Your task to perform on an android device: Open Android settings Image 0: 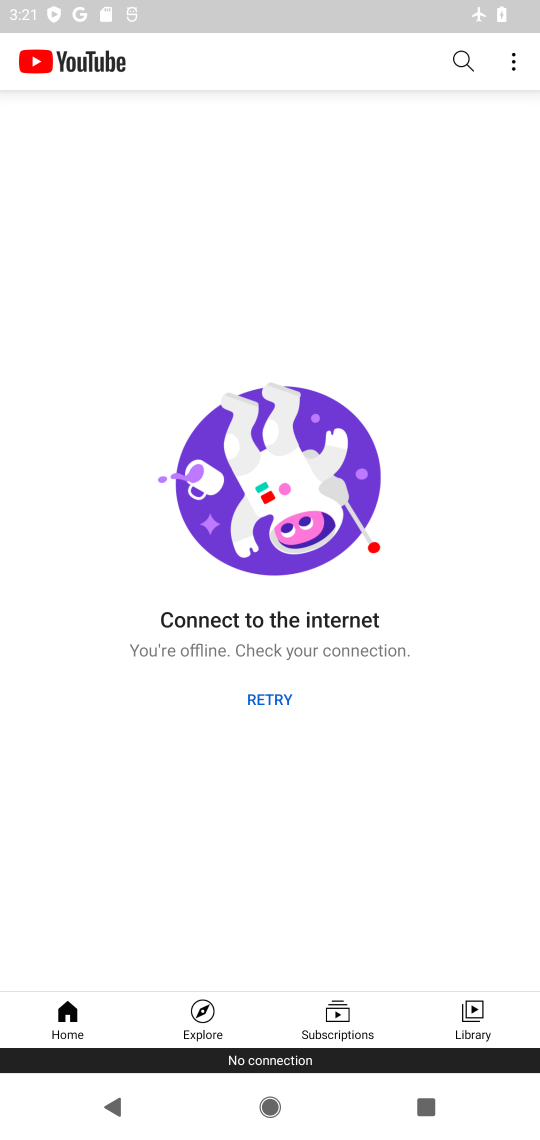
Step 0: press home button
Your task to perform on an android device: Open Android settings Image 1: 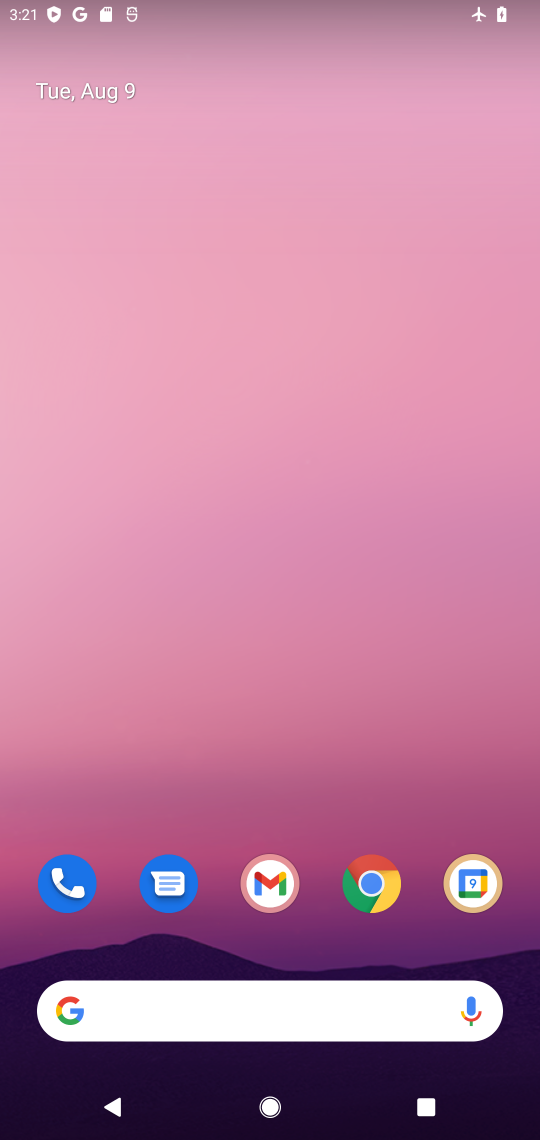
Step 1: drag from (436, 807) to (388, 116)
Your task to perform on an android device: Open Android settings Image 2: 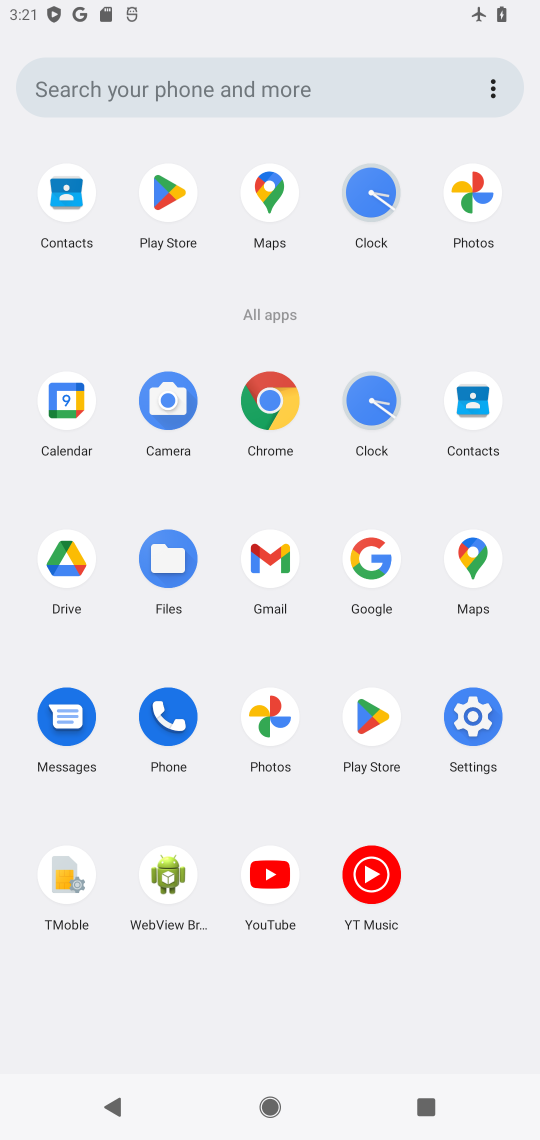
Step 2: click (474, 717)
Your task to perform on an android device: Open Android settings Image 3: 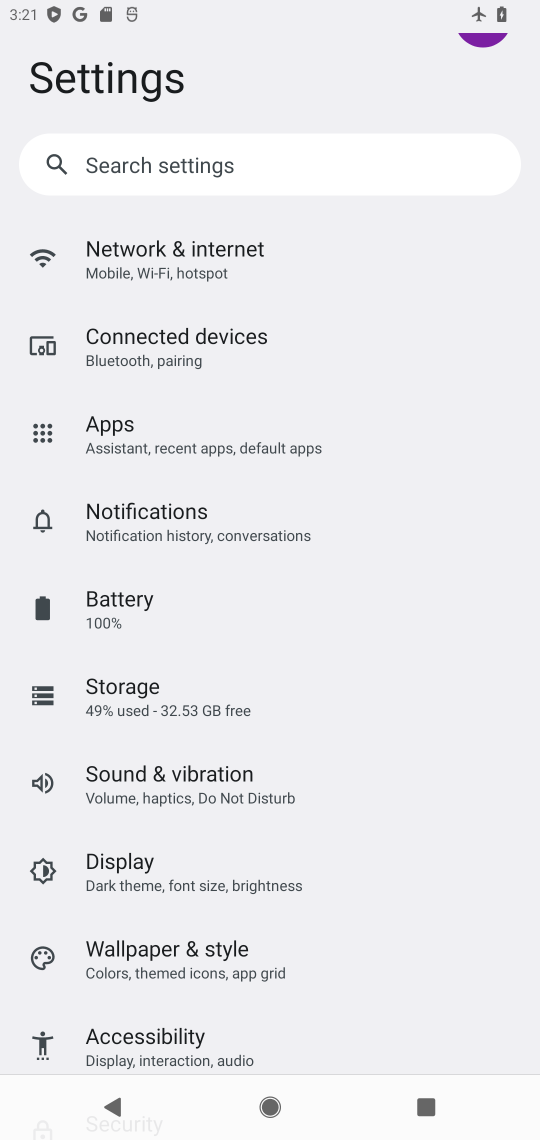
Step 3: drag from (388, 924) to (386, 258)
Your task to perform on an android device: Open Android settings Image 4: 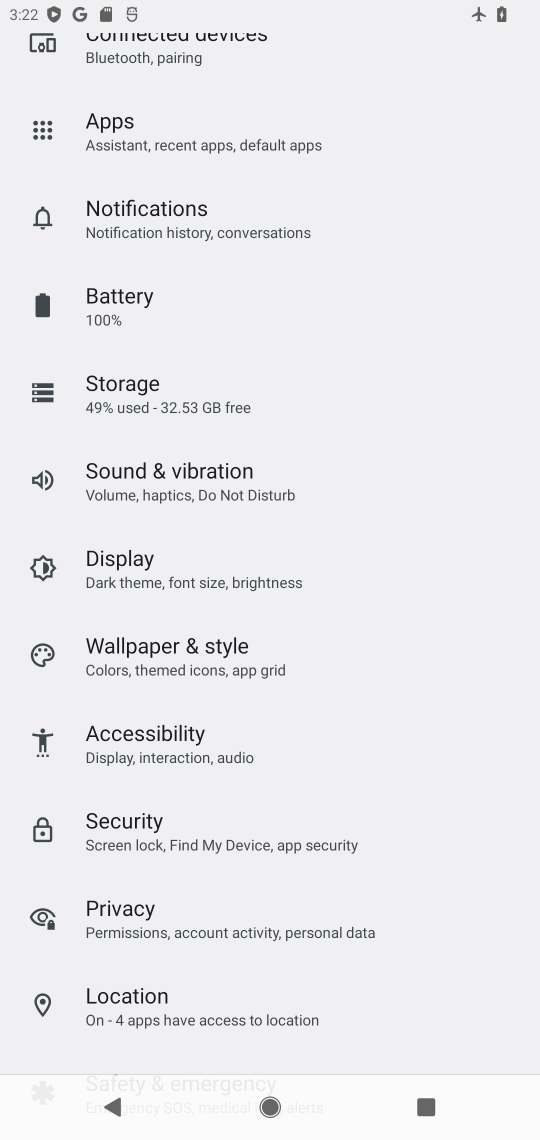
Step 4: drag from (359, 908) to (374, 337)
Your task to perform on an android device: Open Android settings Image 5: 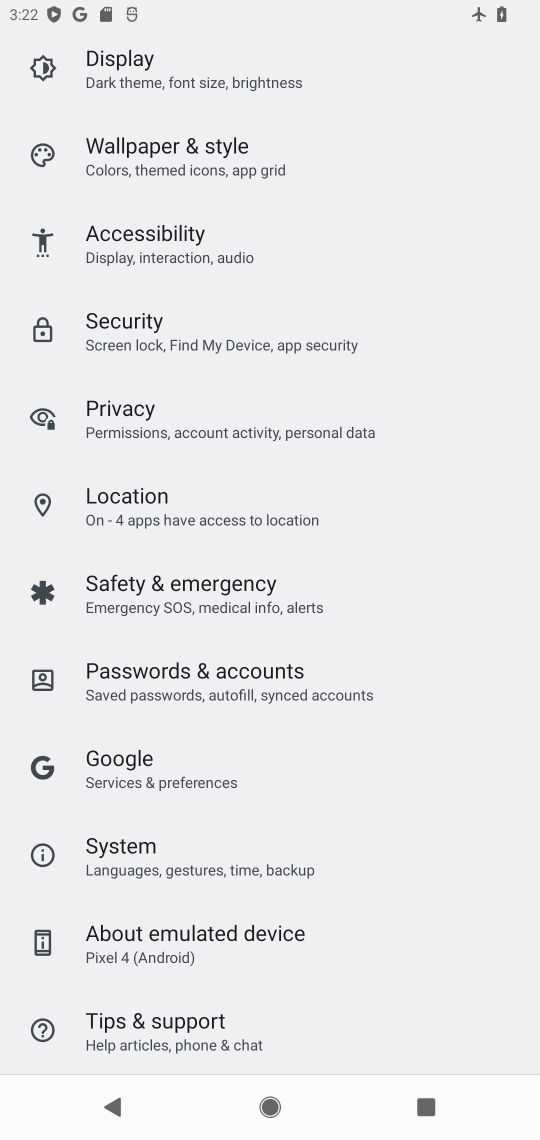
Step 5: click (204, 928)
Your task to perform on an android device: Open Android settings Image 6: 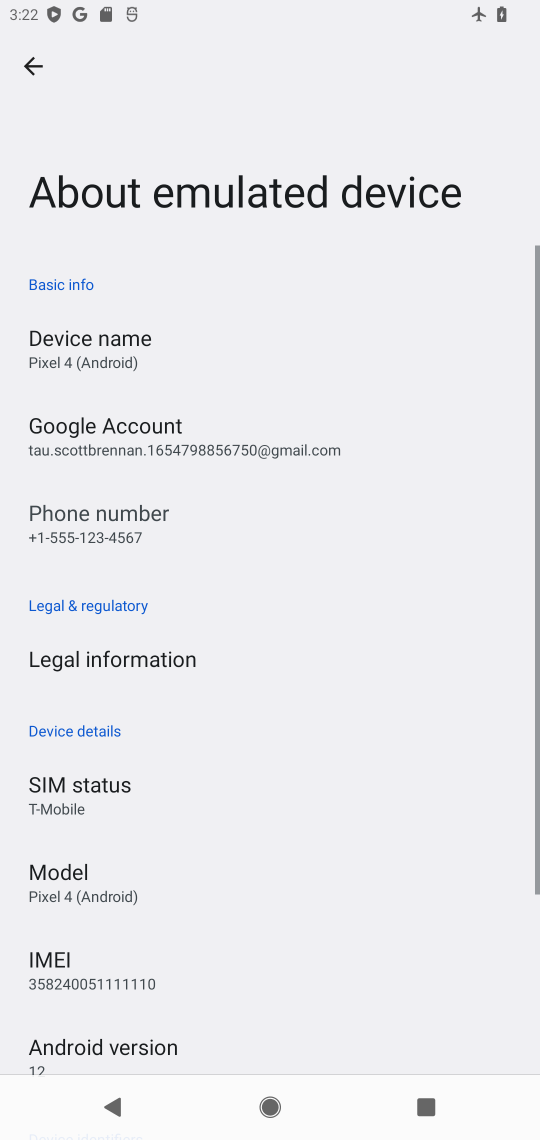
Step 6: task complete